Your task to perform on an android device: Go to notification settings Image 0: 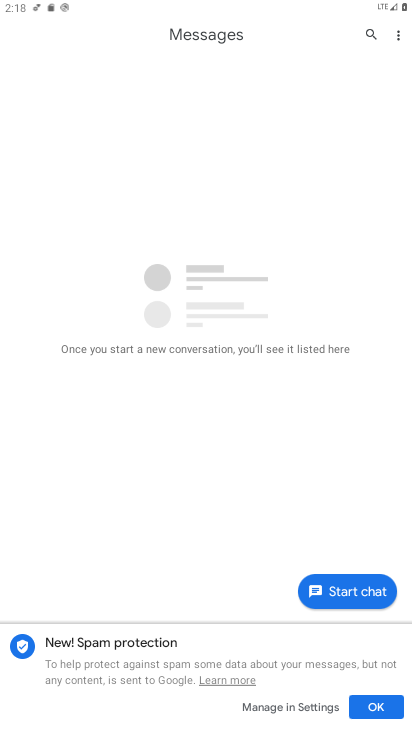
Step 0: press home button
Your task to perform on an android device: Go to notification settings Image 1: 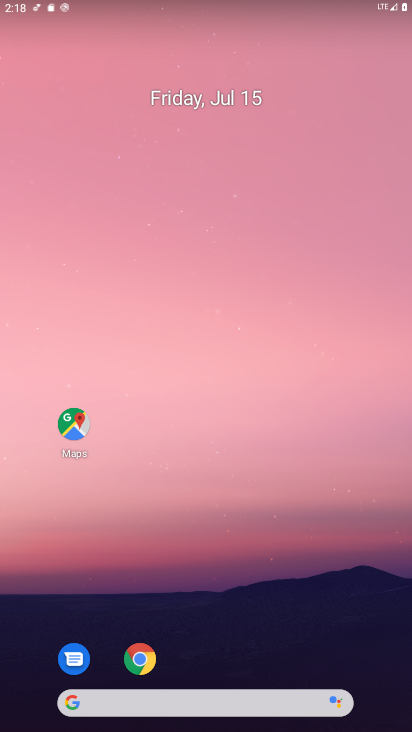
Step 1: drag from (229, 704) to (235, 357)
Your task to perform on an android device: Go to notification settings Image 2: 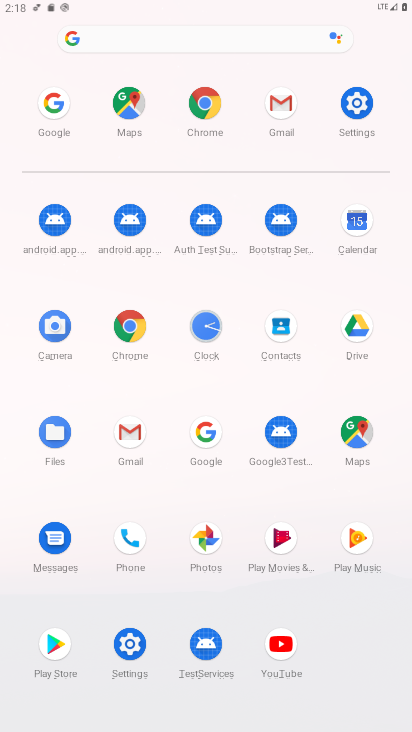
Step 2: click (366, 92)
Your task to perform on an android device: Go to notification settings Image 3: 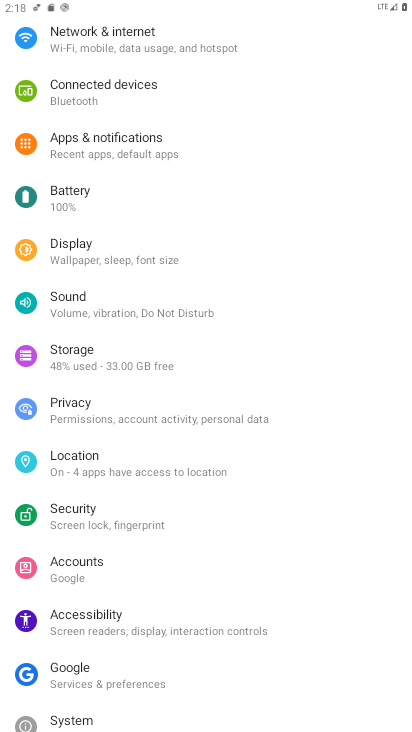
Step 3: click (96, 146)
Your task to perform on an android device: Go to notification settings Image 4: 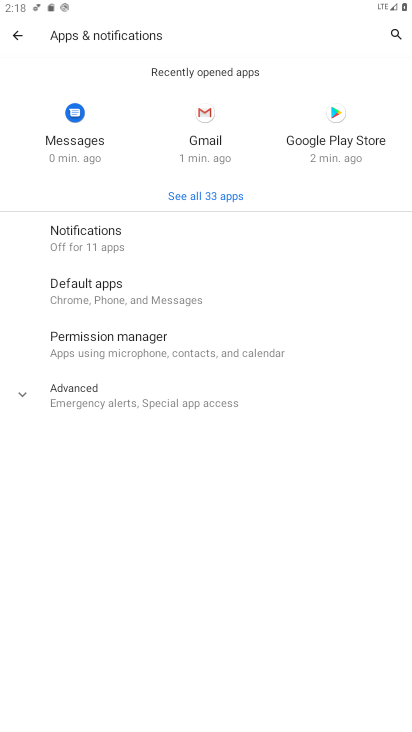
Step 4: click (149, 243)
Your task to perform on an android device: Go to notification settings Image 5: 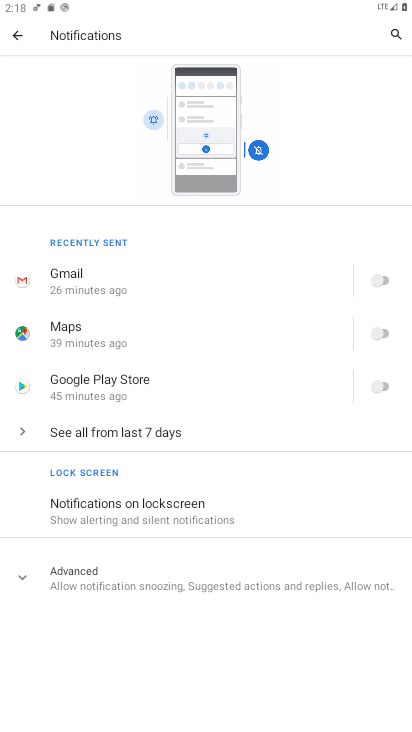
Step 5: click (96, 428)
Your task to perform on an android device: Go to notification settings Image 6: 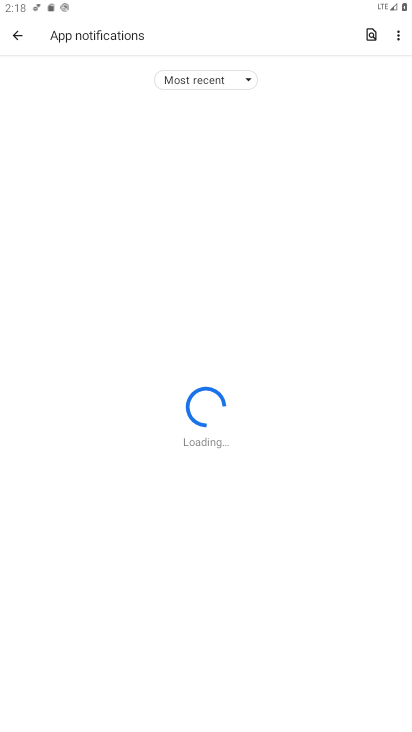
Step 6: task complete